Your task to perform on an android device: clear all cookies in the chrome app Image 0: 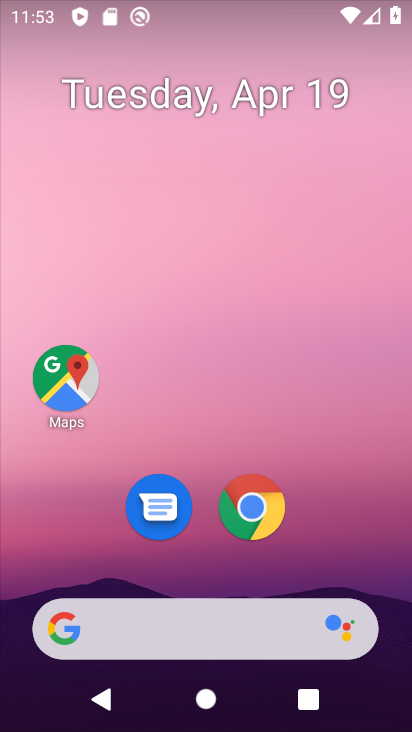
Step 0: drag from (344, 514) to (343, 155)
Your task to perform on an android device: clear all cookies in the chrome app Image 1: 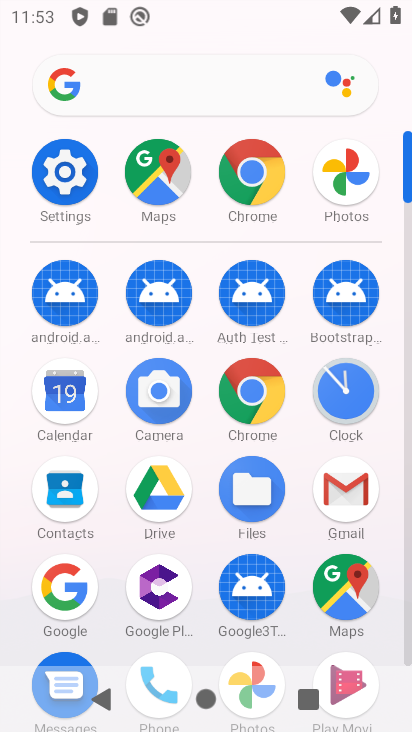
Step 1: click (270, 399)
Your task to perform on an android device: clear all cookies in the chrome app Image 2: 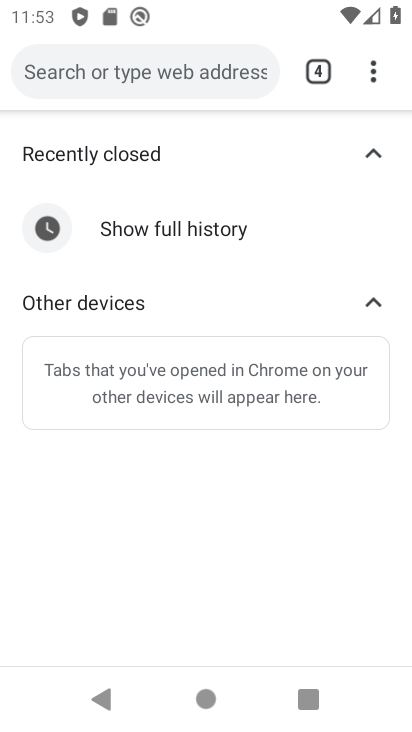
Step 2: drag from (375, 84) to (240, 411)
Your task to perform on an android device: clear all cookies in the chrome app Image 3: 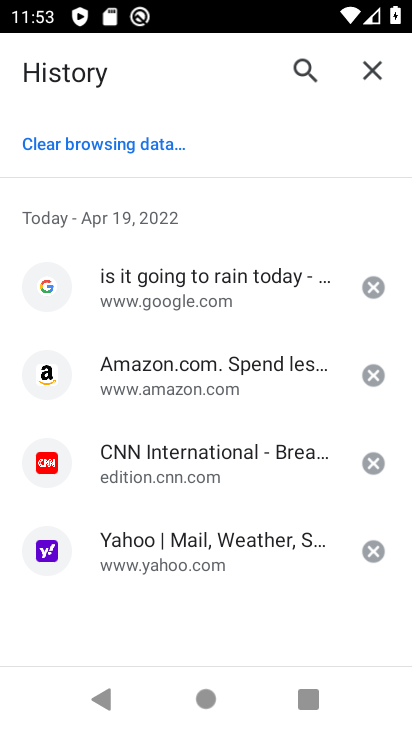
Step 3: click (111, 142)
Your task to perform on an android device: clear all cookies in the chrome app Image 4: 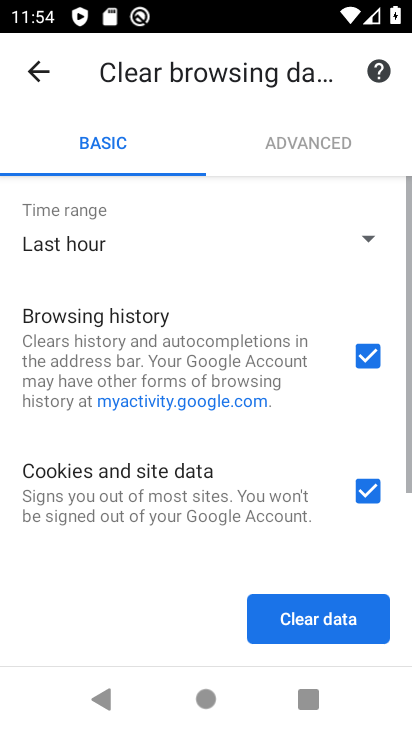
Step 4: click (287, 626)
Your task to perform on an android device: clear all cookies in the chrome app Image 5: 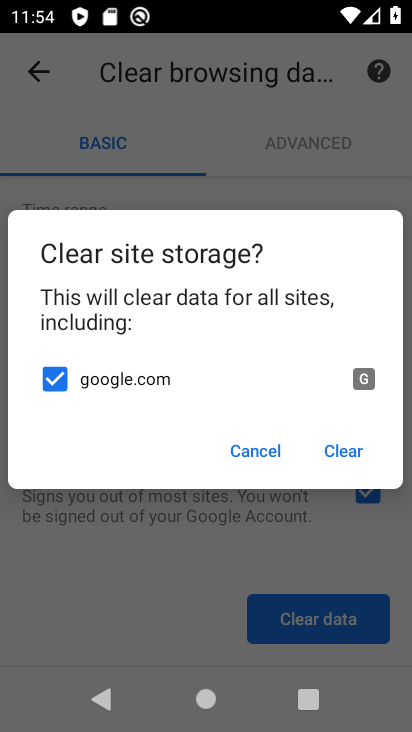
Step 5: click (353, 448)
Your task to perform on an android device: clear all cookies in the chrome app Image 6: 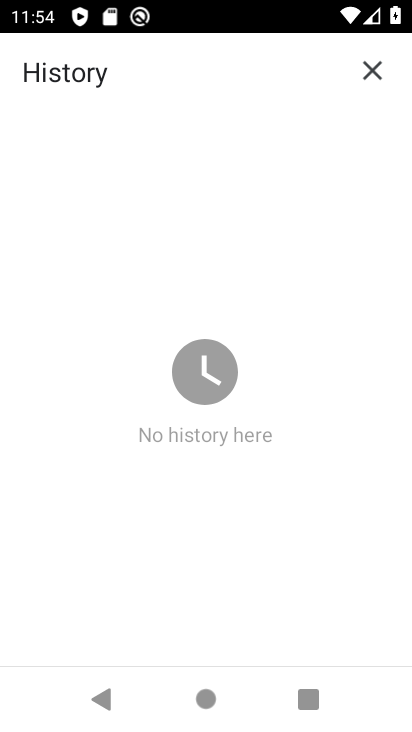
Step 6: task complete